Your task to perform on an android device: What's the weather going to be tomorrow? Image 0: 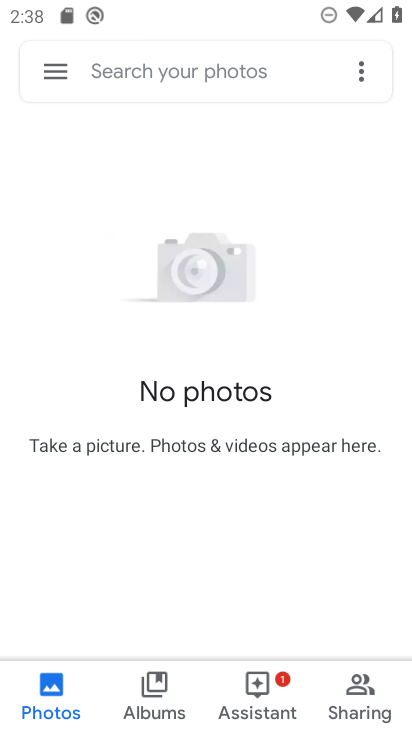
Step 0: press home button
Your task to perform on an android device: What's the weather going to be tomorrow? Image 1: 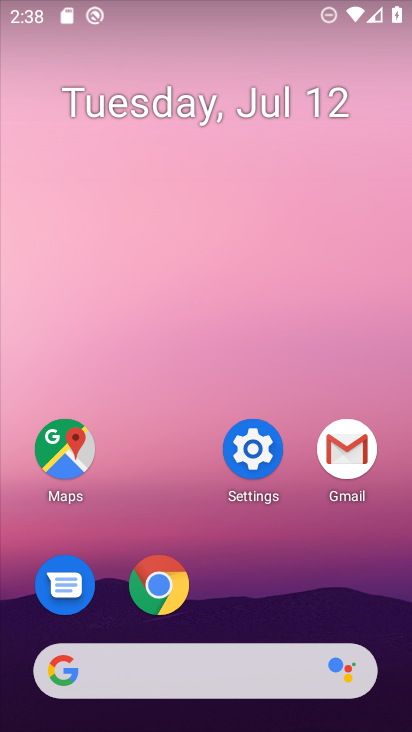
Step 1: task complete